Your task to perform on an android device: delete browsing data in the chrome app Image 0: 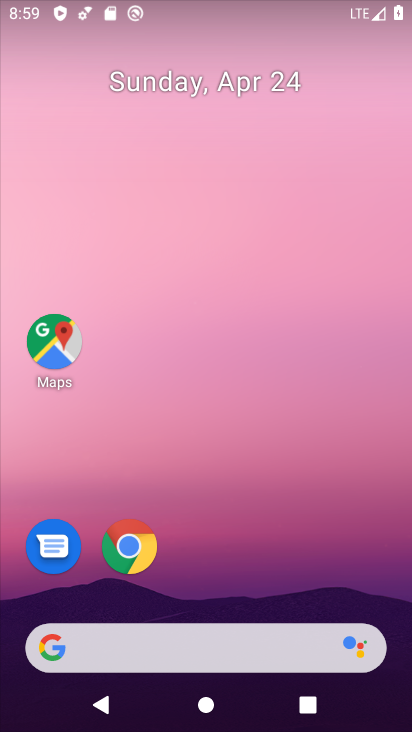
Step 0: click (131, 563)
Your task to perform on an android device: delete browsing data in the chrome app Image 1: 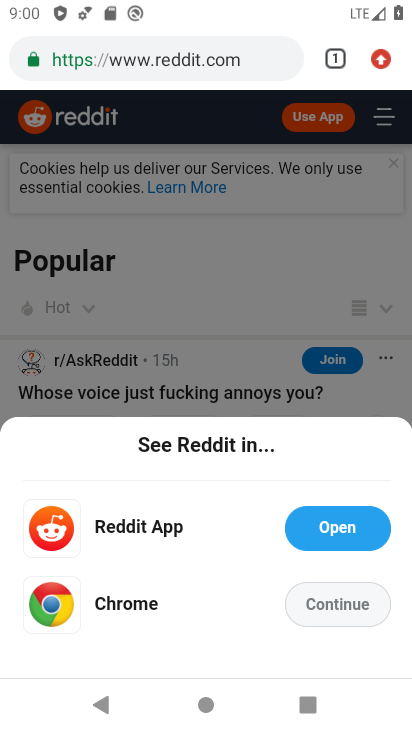
Step 1: click (381, 67)
Your task to perform on an android device: delete browsing data in the chrome app Image 2: 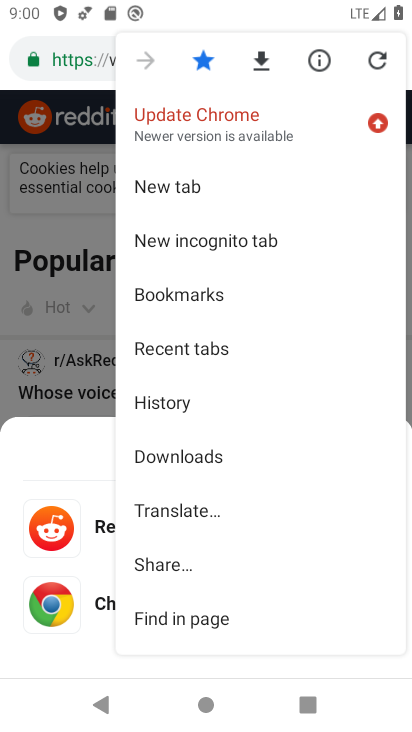
Step 2: drag from (206, 579) to (208, 309)
Your task to perform on an android device: delete browsing data in the chrome app Image 3: 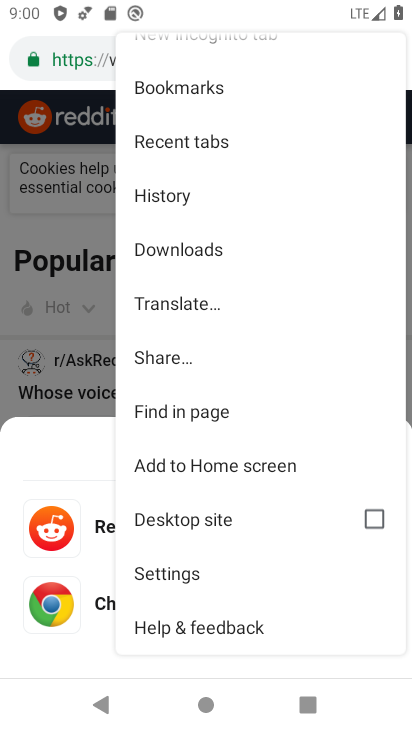
Step 3: click (198, 178)
Your task to perform on an android device: delete browsing data in the chrome app Image 4: 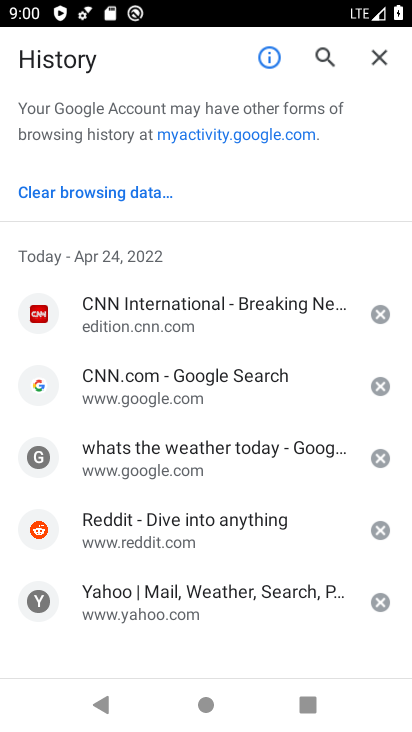
Step 4: click (67, 201)
Your task to perform on an android device: delete browsing data in the chrome app Image 5: 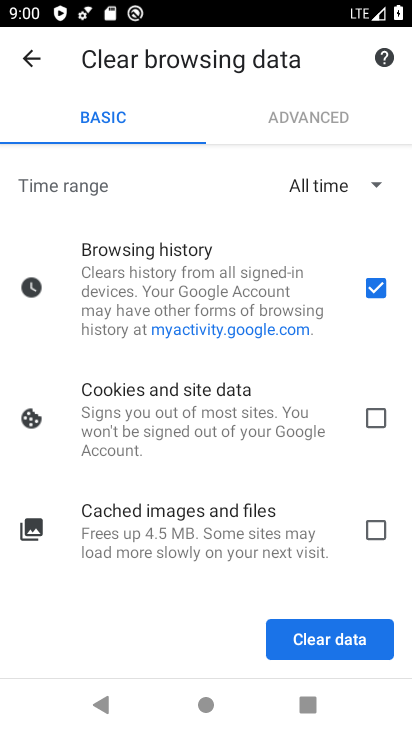
Step 5: click (363, 560)
Your task to perform on an android device: delete browsing data in the chrome app Image 6: 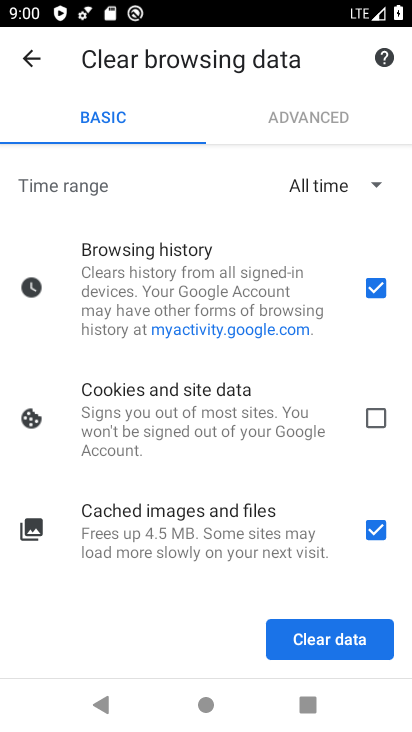
Step 6: click (364, 448)
Your task to perform on an android device: delete browsing data in the chrome app Image 7: 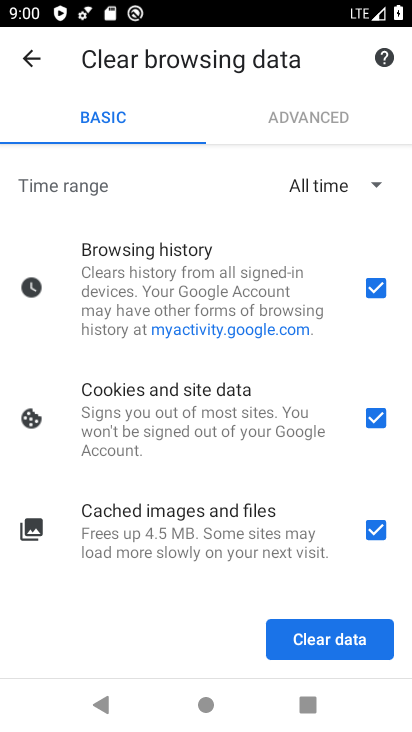
Step 7: click (328, 651)
Your task to perform on an android device: delete browsing data in the chrome app Image 8: 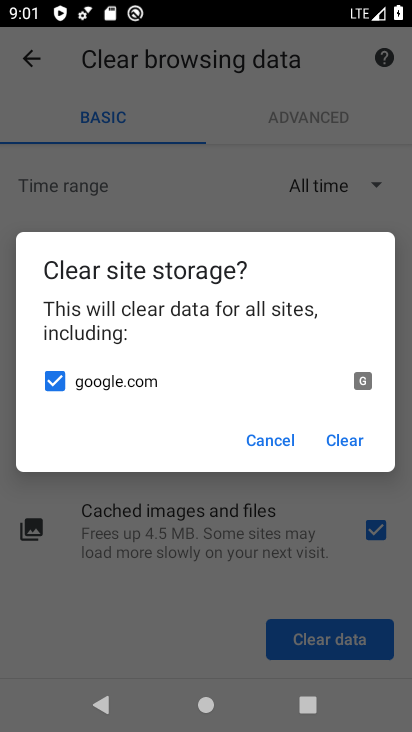
Step 8: click (342, 445)
Your task to perform on an android device: delete browsing data in the chrome app Image 9: 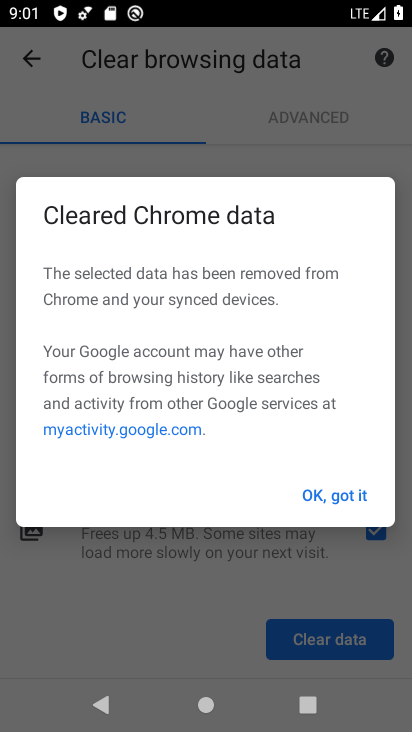
Step 9: click (337, 498)
Your task to perform on an android device: delete browsing data in the chrome app Image 10: 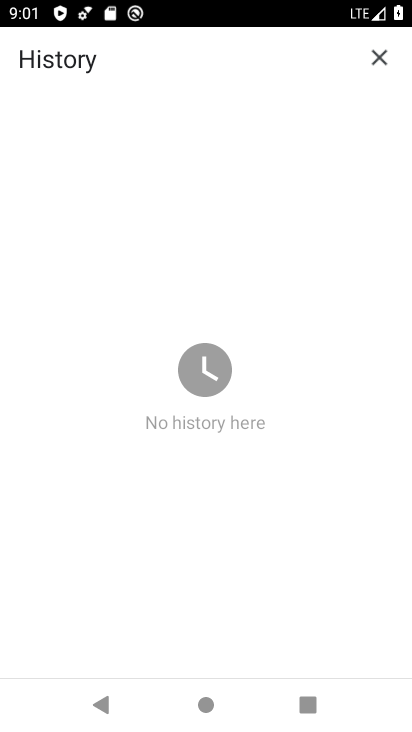
Step 10: task complete